Your task to perform on an android device: Go to calendar. Show me events next week Image 0: 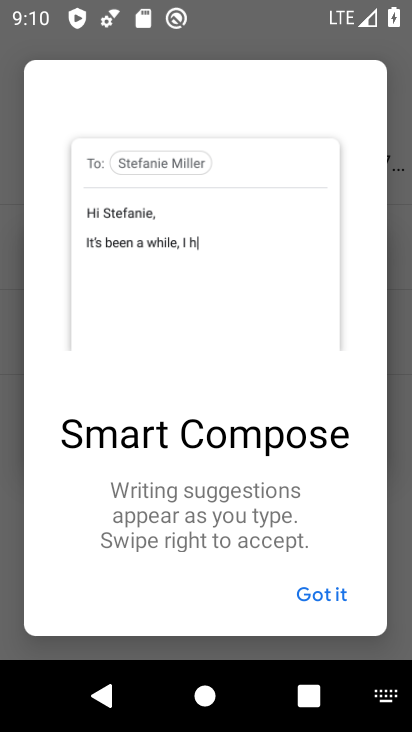
Step 0: click (327, 600)
Your task to perform on an android device: Go to calendar. Show me events next week Image 1: 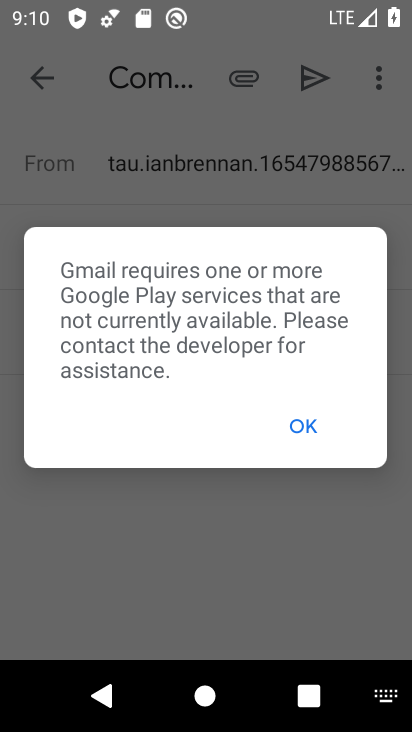
Step 1: press home button
Your task to perform on an android device: Go to calendar. Show me events next week Image 2: 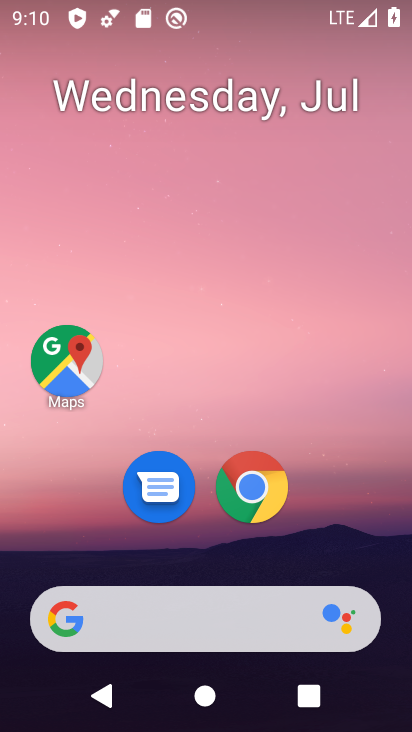
Step 2: drag from (208, 568) to (179, 111)
Your task to perform on an android device: Go to calendar. Show me events next week Image 3: 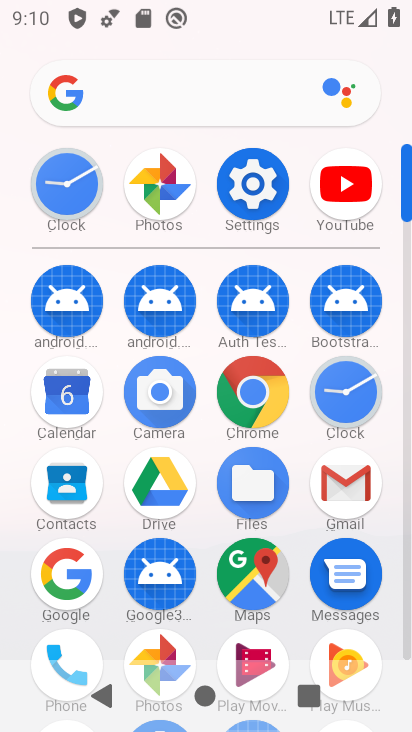
Step 3: click (77, 387)
Your task to perform on an android device: Go to calendar. Show me events next week Image 4: 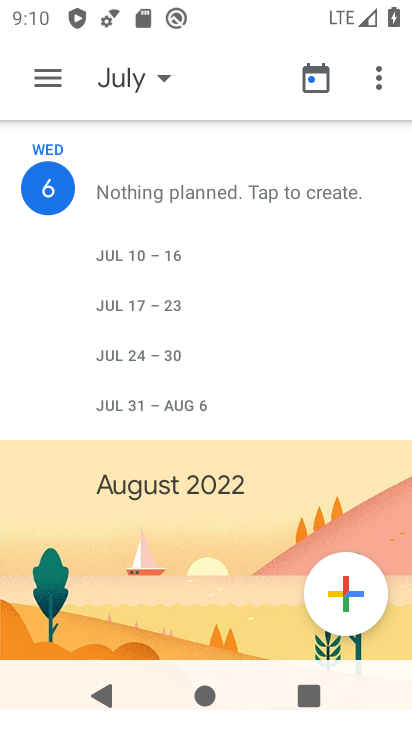
Step 4: click (58, 83)
Your task to perform on an android device: Go to calendar. Show me events next week Image 5: 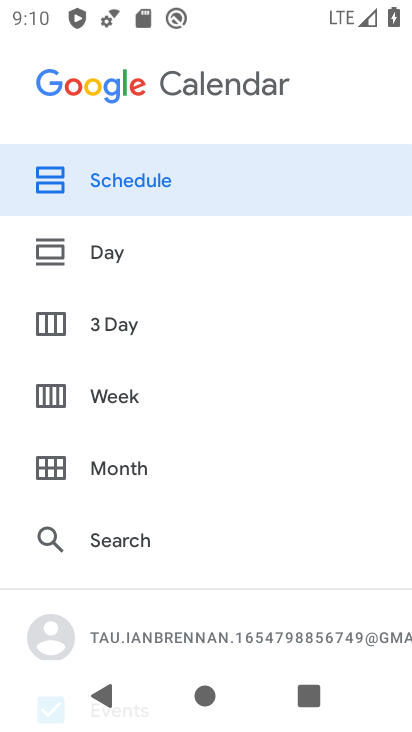
Step 5: click (113, 395)
Your task to perform on an android device: Go to calendar. Show me events next week Image 6: 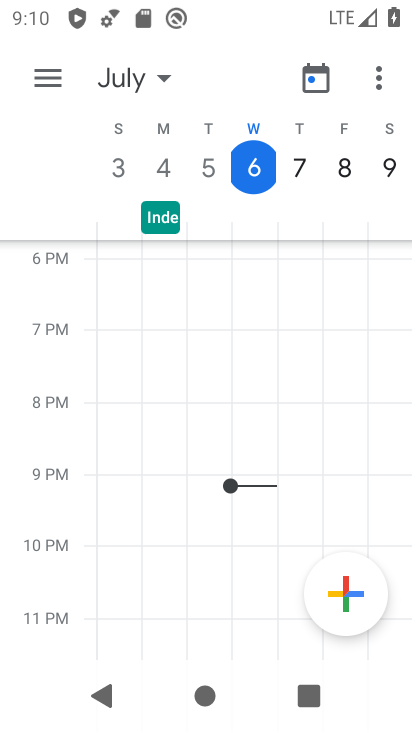
Step 6: drag from (368, 161) to (95, 183)
Your task to perform on an android device: Go to calendar. Show me events next week Image 7: 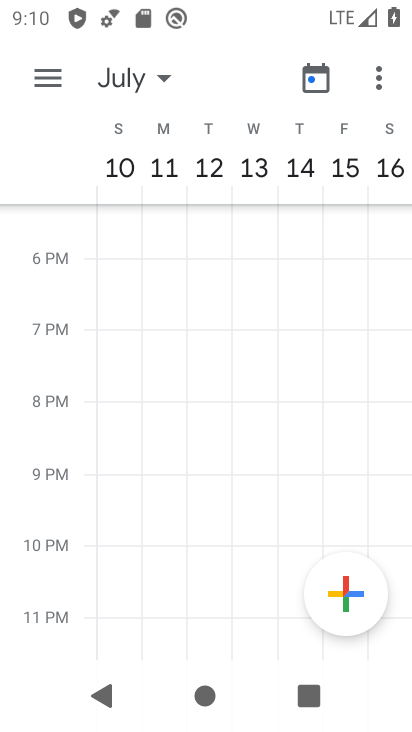
Step 7: click (34, 84)
Your task to perform on an android device: Go to calendar. Show me events next week Image 8: 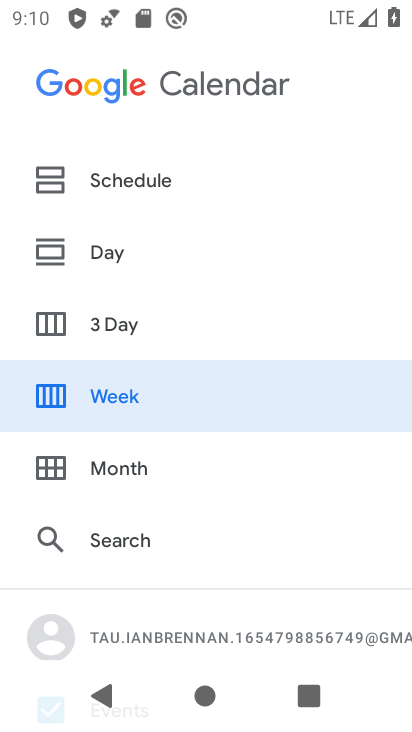
Step 8: click (34, 84)
Your task to perform on an android device: Go to calendar. Show me events next week Image 9: 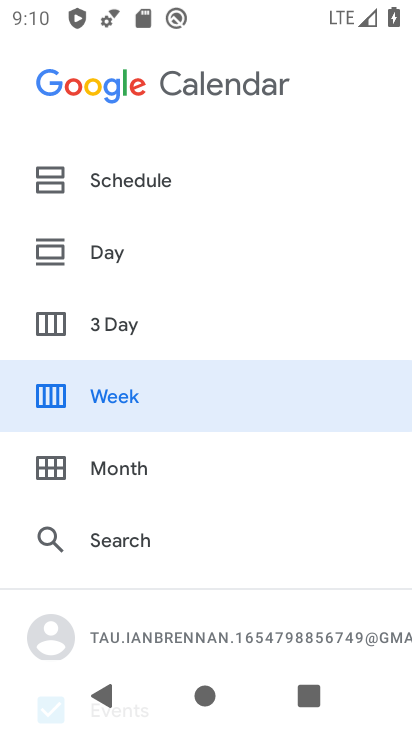
Step 9: task complete